Your task to perform on an android device: Open the Play Movies app and select the watchlist tab. Image 0: 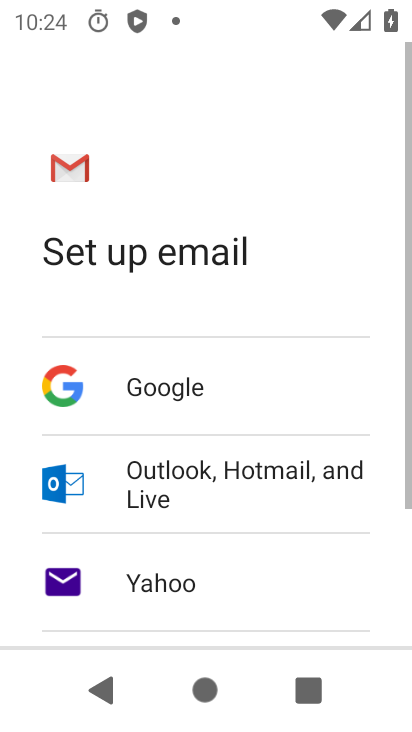
Step 0: press home button
Your task to perform on an android device: Open the Play Movies app and select the watchlist tab. Image 1: 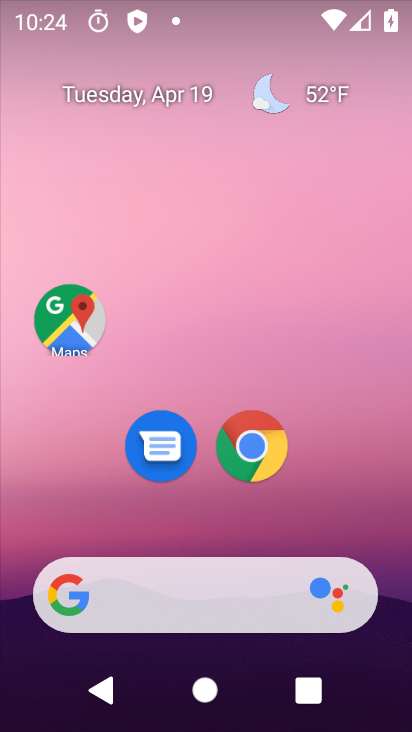
Step 1: drag from (362, 528) to (335, 129)
Your task to perform on an android device: Open the Play Movies app and select the watchlist tab. Image 2: 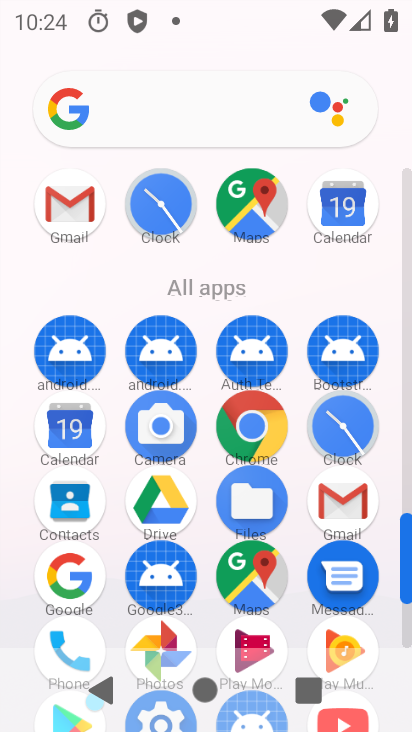
Step 2: drag from (410, 429) to (409, 339)
Your task to perform on an android device: Open the Play Movies app and select the watchlist tab. Image 3: 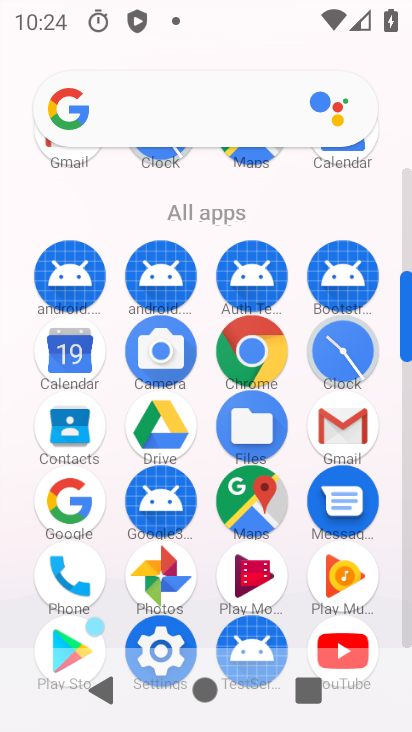
Step 3: drag from (400, 308) to (401, 200)
Your task to perform on an android device: Open the Play Movies app and select the watchlist tab. Image 4: 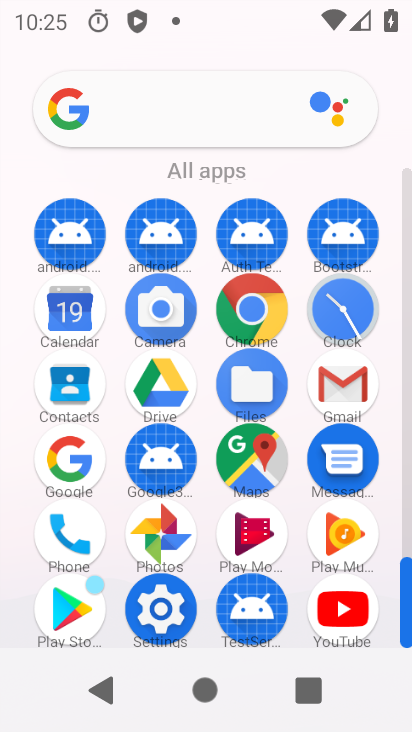
Step 4: click (251, 538)
Your task to perform on an android device: Open the Play Movies app and select the watchlist tab. Image 5: 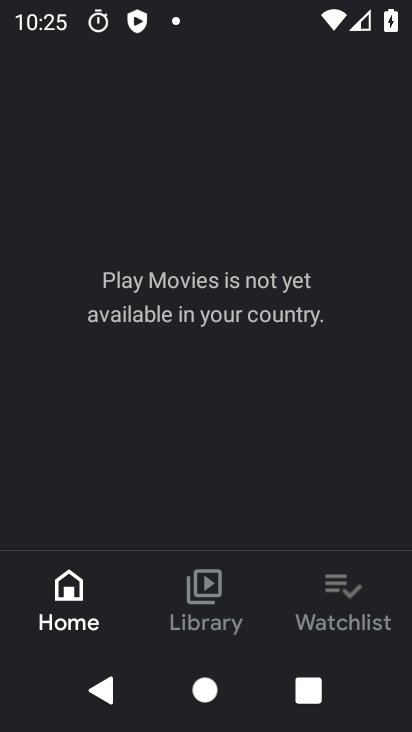
Step 5: click (329, 598)
Your task to perform on an android device: Open the Play Movies app and select the watchlist tab. Image 6: 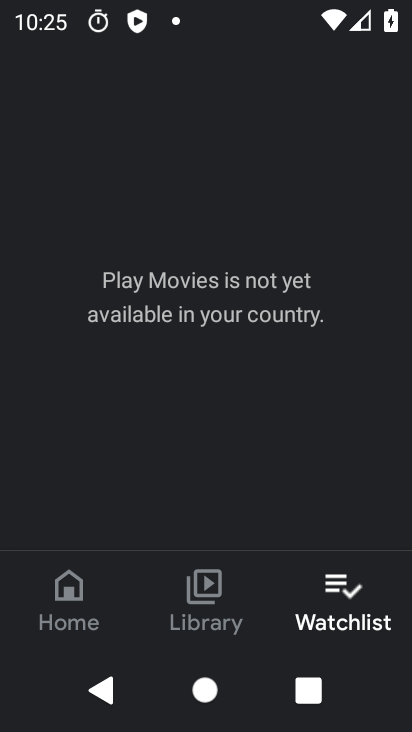
Step 6: task complete